Your task to perform on an android device: change the clock display to show seconds Image 0: 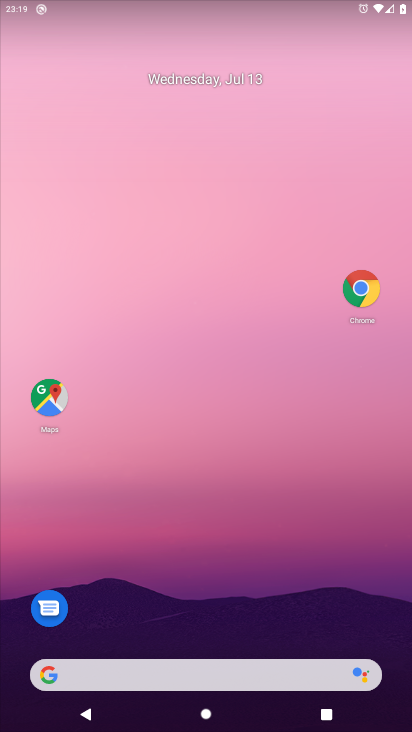
Step 0: drag from (42, 676) to (204, 8)
Your task to perform on an android device: change the clock display to show seconds Image 1: 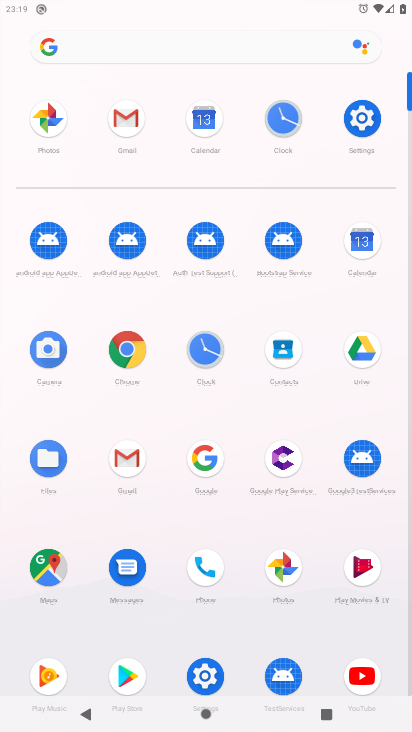
Step 1: click (208, 358)
Your task to perform on an android device: change the clock display to show seconds Image 2: 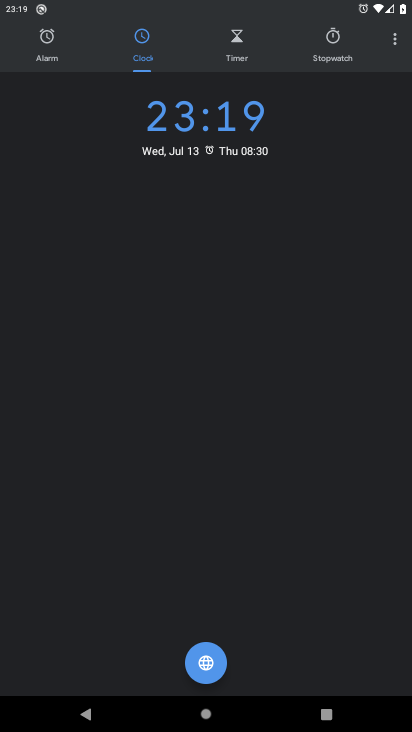
Step 2: click (391, 41)
Your task to perform on an android device: change the clock display to show seconds Image 3: 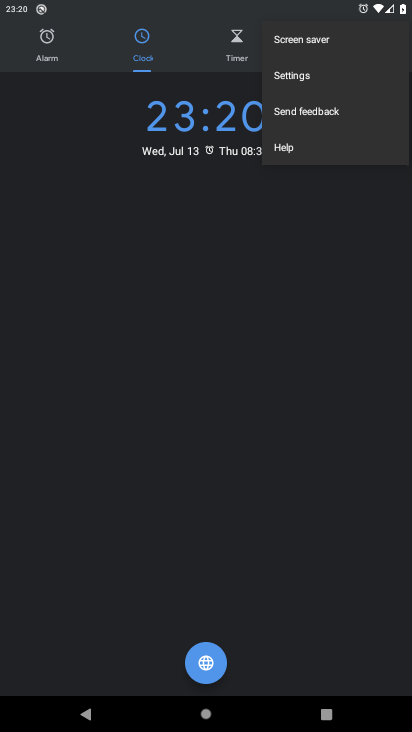
Step 3: click (302, 87)
Your task to perform on an android device: change the clock display to show seconds Image 4: 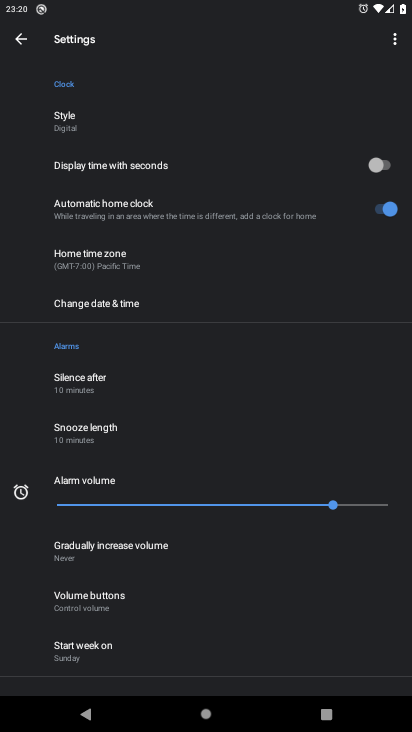
Step 4: click (131, 308)
Your task to perform on an android device: change the clock display to show seconds Image 5: 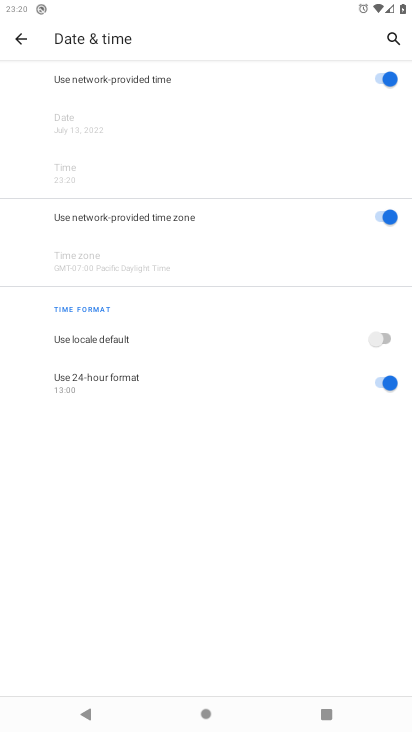
Step 5: click (391, 372)
Your task to perform on an android device: change the clock display to show seconds Image 6: 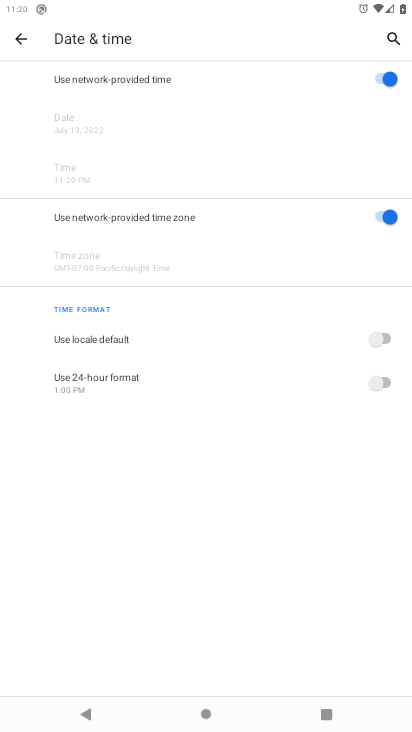
Step 6: task complete